Your task to perform on an android device: turn off priority inbox in the gmail app Image 0: 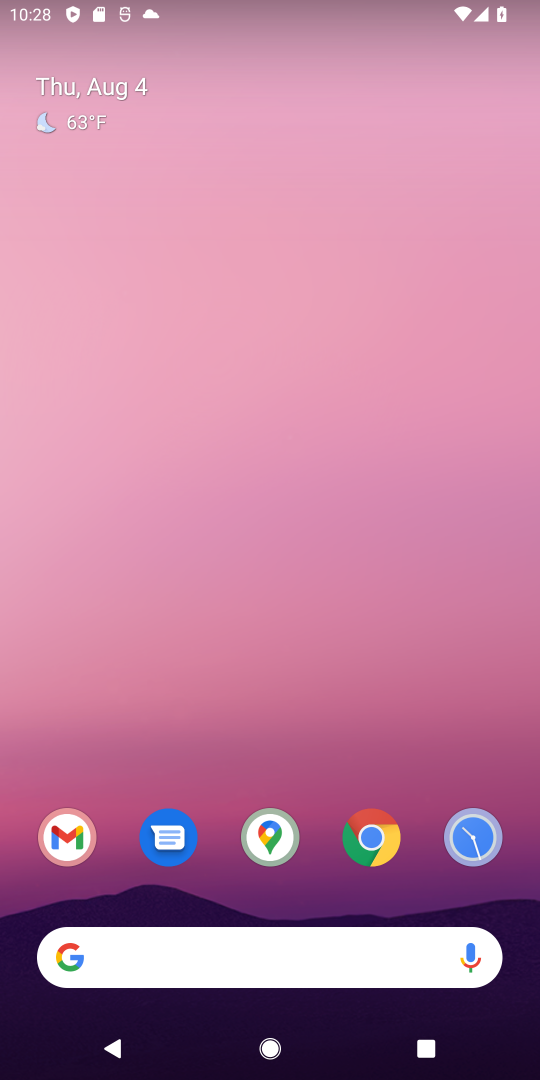
Step 0: drag from (324, 875) to (292, 288)
Your task to perform on an android device: turn off priority inbox in the gmail app Image 1: 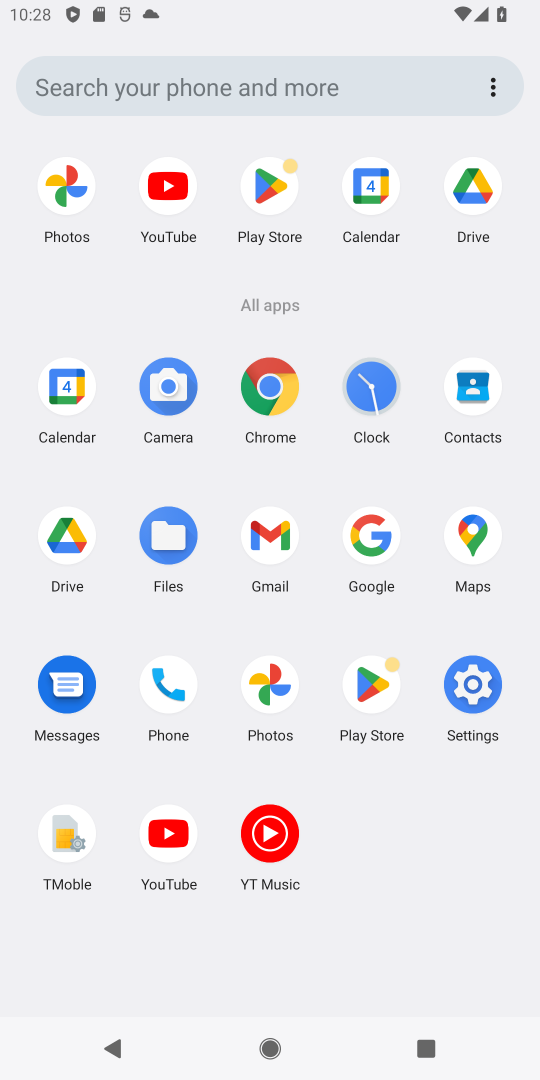
Step 1: click (267, 540)
Your task to perform on an android device: turn off priority inbox in the gmail app Image 2: 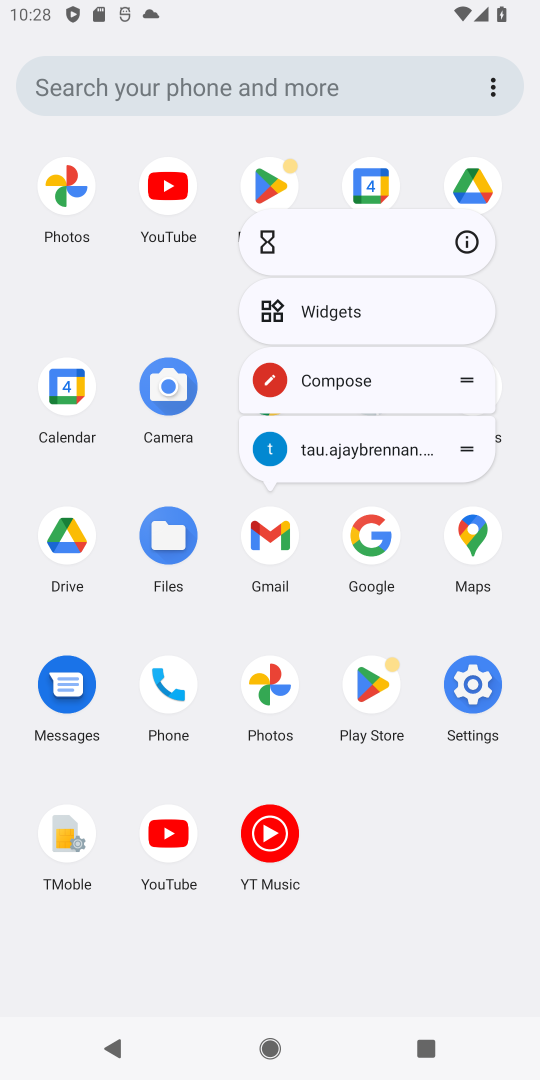
Step 2: click (272, 544)
Your task to perform on an android device: turn off priority inbox in the gmail app Image 3: 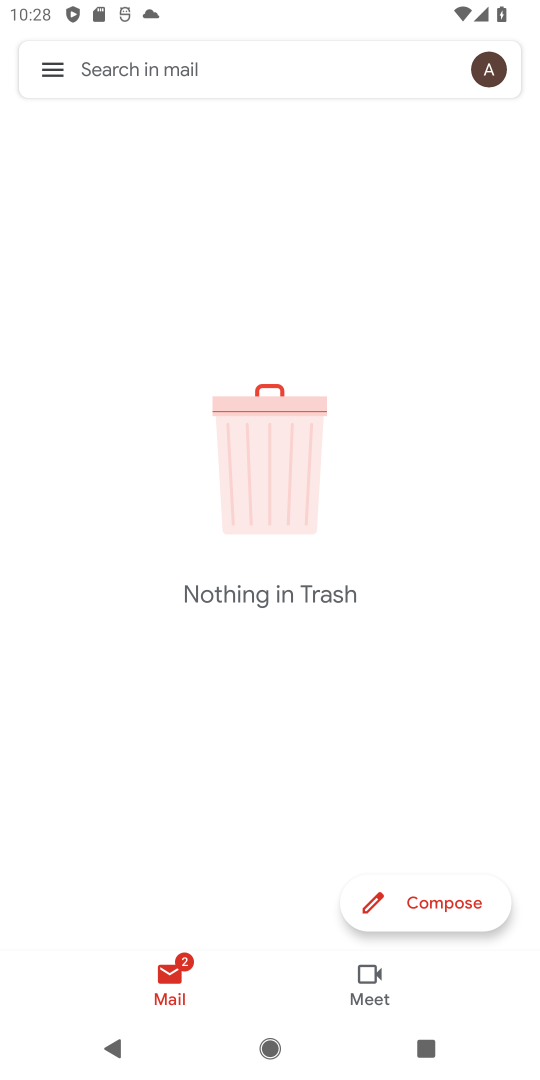
Step 3: click (49, 64)
Your task to perform on an android device: turn off priority inbox in the gmail app Image 4: 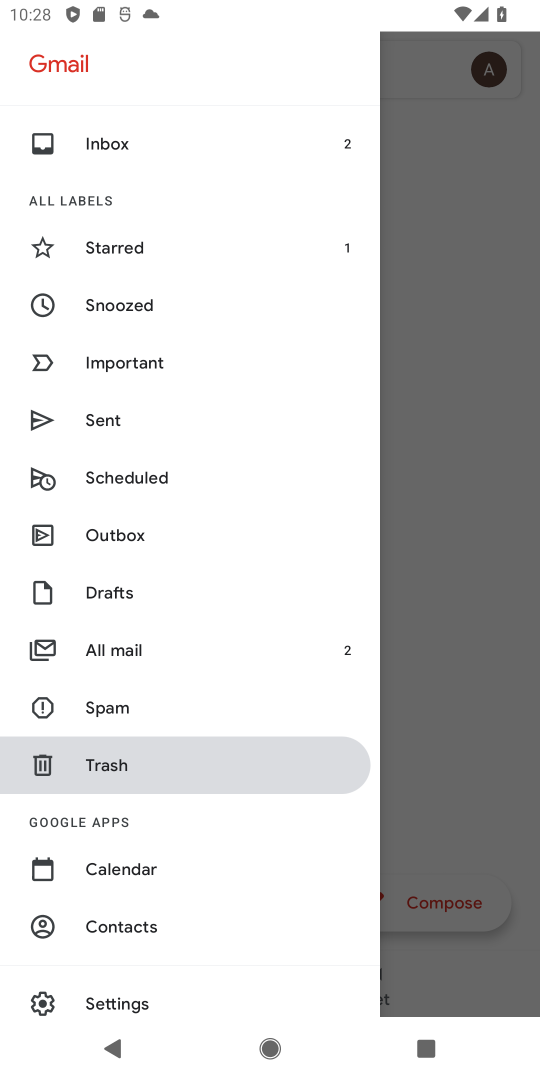
Step 4: drag from (147, 993) to (202, 581)
Your task to perform on an android device: turn off priority inbox in the gmail app Image 5: 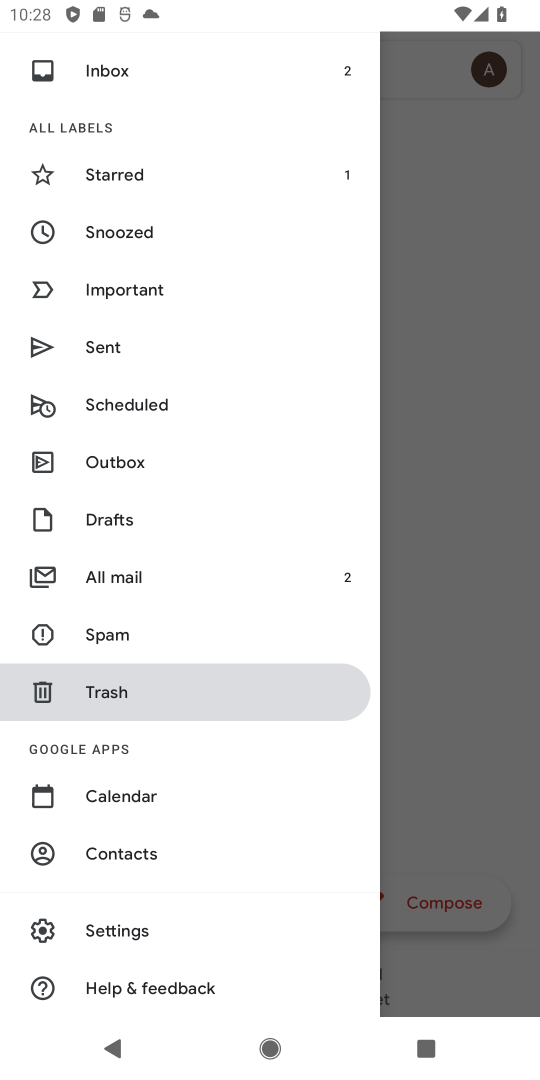
Step 5: click (108, 926)
Your task to perform on an android device: turn off priority inbox in the gmail app Image 6: 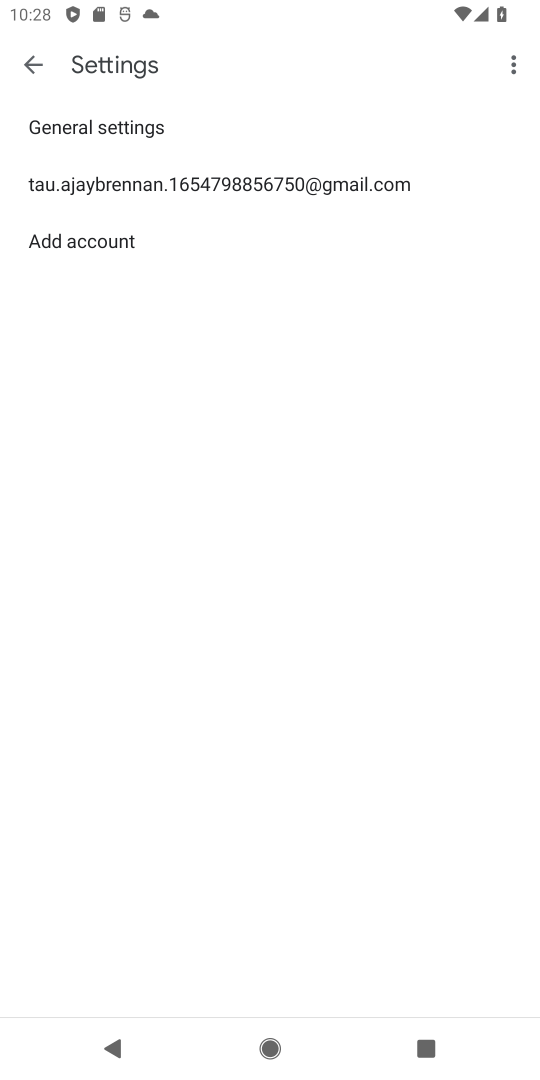
Step 6: click (106, 167)
Your task to perform on an android device: turn off priority inbox in the gmail app Image 7: 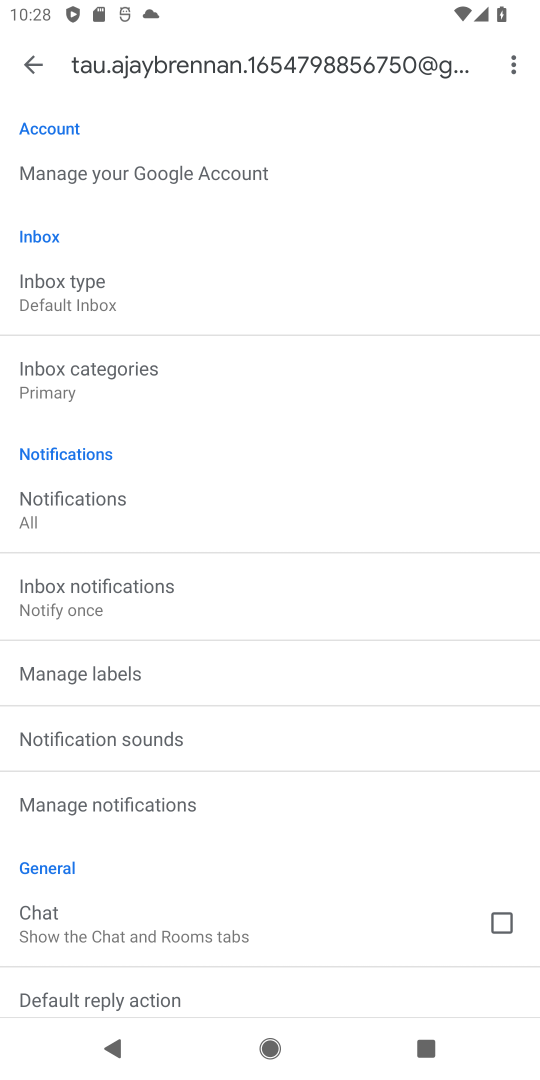
Step 7: click (149, 296)
Your task to perform on an android device: turn off priority inbox in the gmail app Image 8: 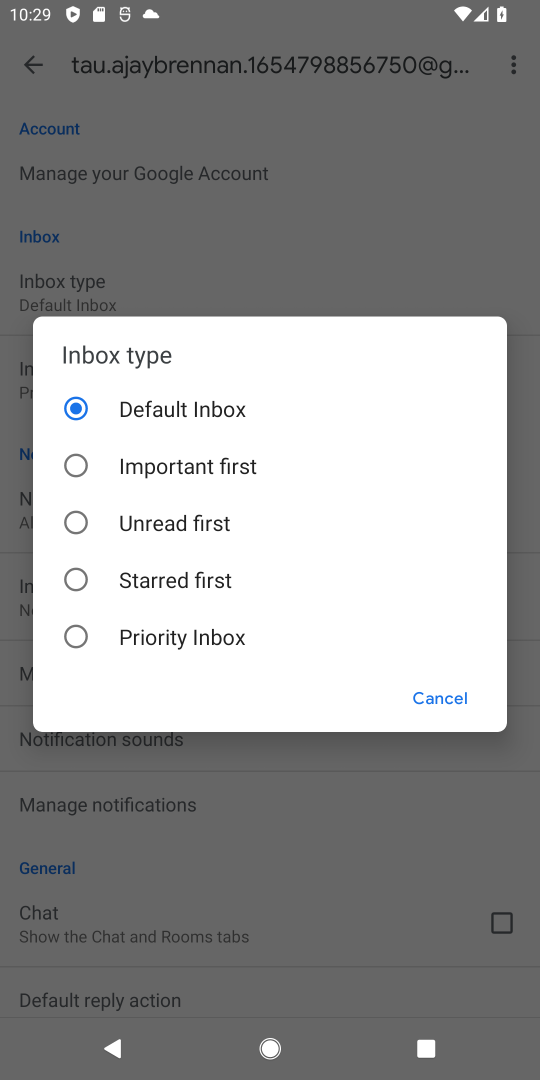
Step 8: task complete